Your task to perform on an android device: Check the weather Image 0: 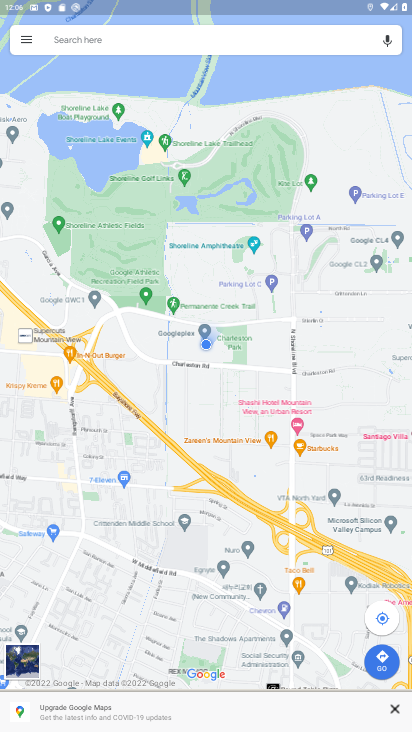
Step 0: press home button
Your task to perform on an android device: Check the weather Image 1: 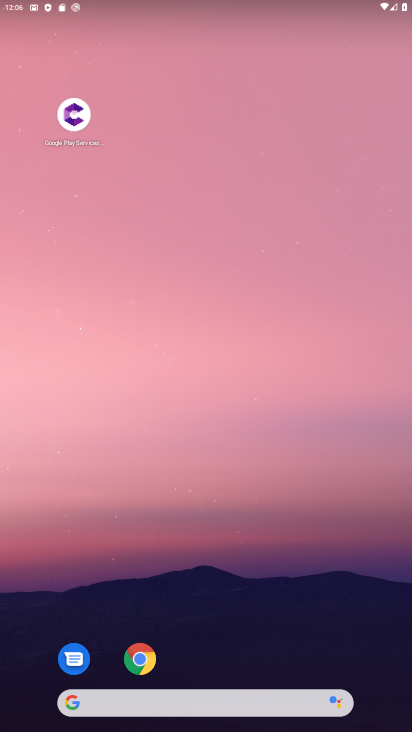
Step 1: drag from (329, 502) to (278, 0)
Your task to perform on an android device: Check the weather Image 2: 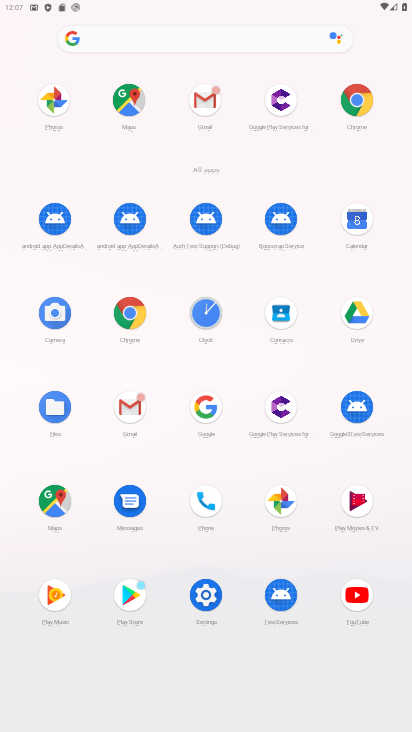
Step 2: click (131, 329)
Your task to perform on an android device: Check the weather Image 3: 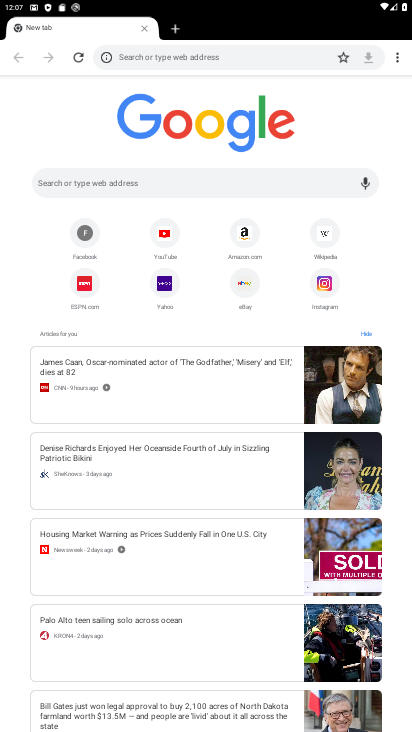
Step 3: click (397, 59)
Your task to perform on an android device: Check the weather Image 4: 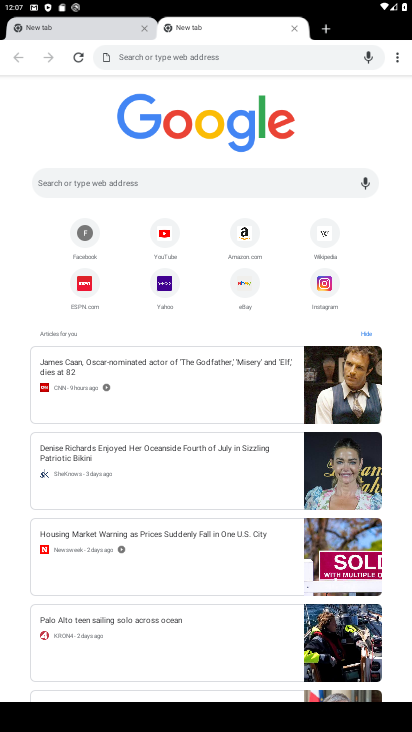
Step 4: click (174, 188)
Your task to perform on an android device: Check the weather Image 5: 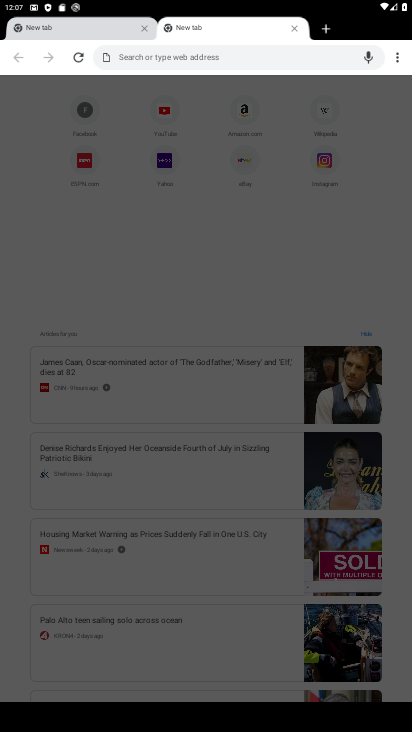
Step 5: type "weather"
Your task to perform on an android device: Check the weather Image 6: 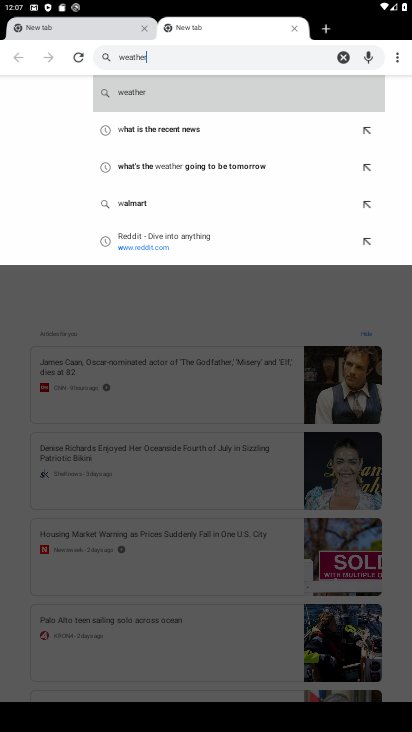
Step 6: type ""
Your task to perform on an android device: Check the weather Image 7: 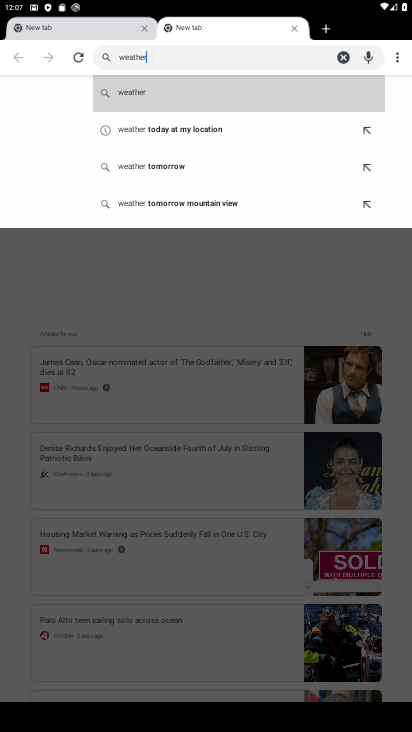
Step 7: click (203, 105)
Your task to perform on an android device: Check the weather Image 8: 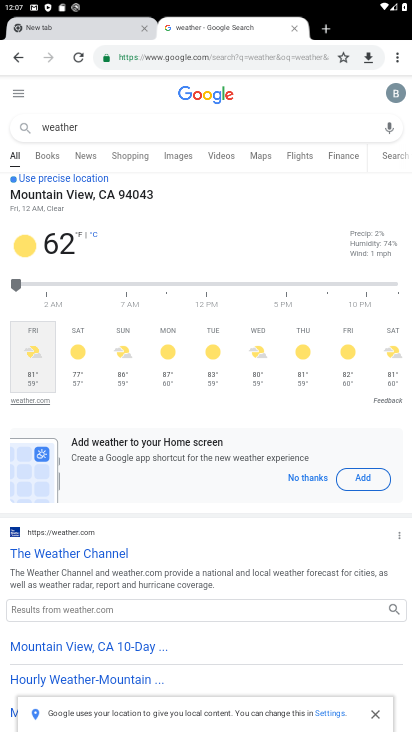
Step 8: task complete